Your task to perform on an android device: Go to Wikipedia Image 0: 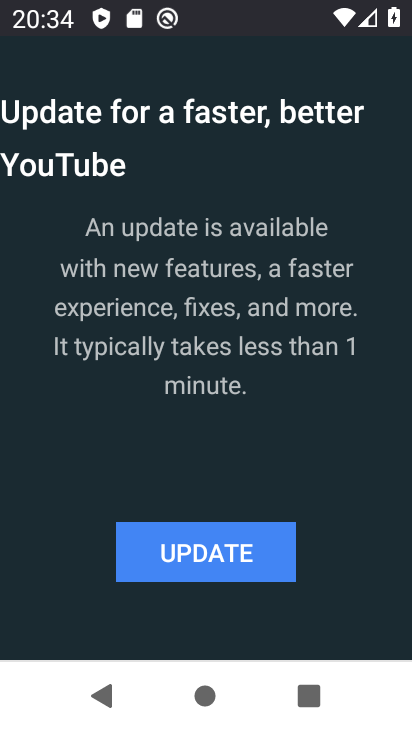
Step 0: press back button
Your task to perform on an android device: Go to Wikipedia Image 1: 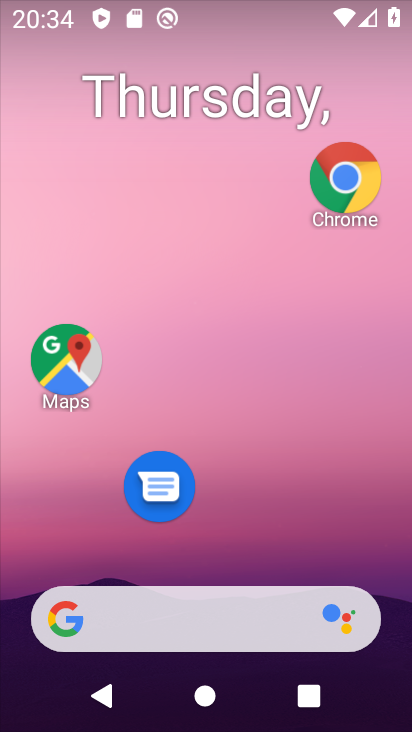
Step 1: click (363, 170)
Your task to perform on an android device: Go to Wikipedia Image 2: 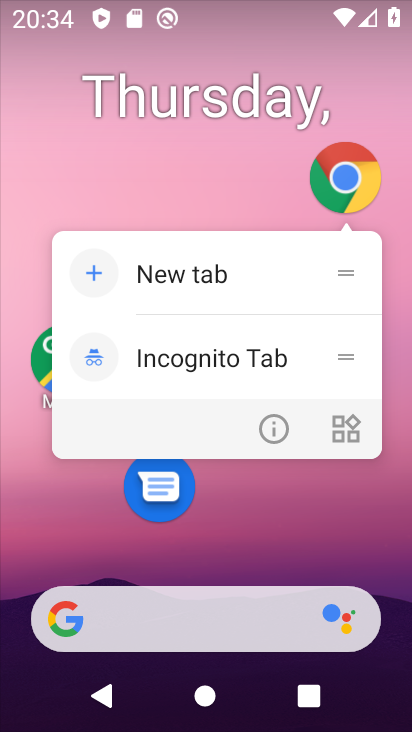
Step 2: click (352, 174)
Your task to perform on an android device: Go to Wikipedia Image 3: 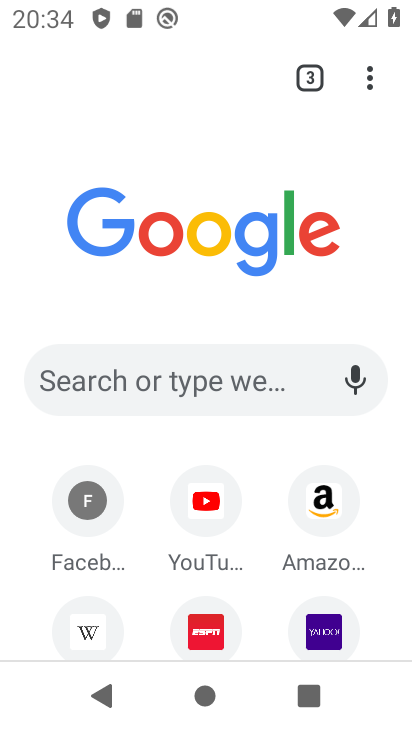
Step 3: click (88, 636)
Your task to perform on an android device: Go to Wikipedia Image 4: 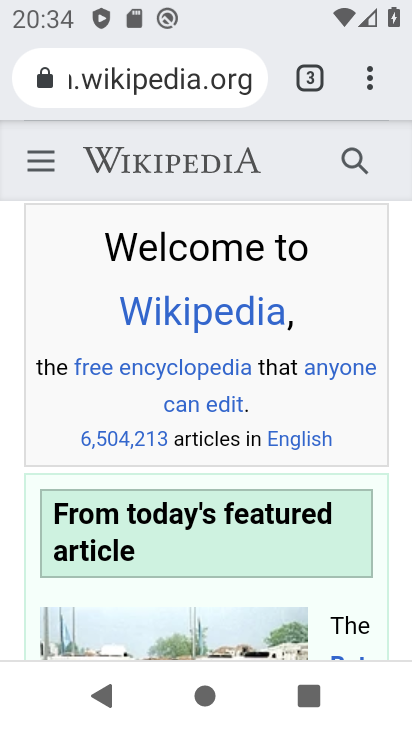
Step 4: task complete